Your task to perform on an android device: find photos in the google photos app Image 0: 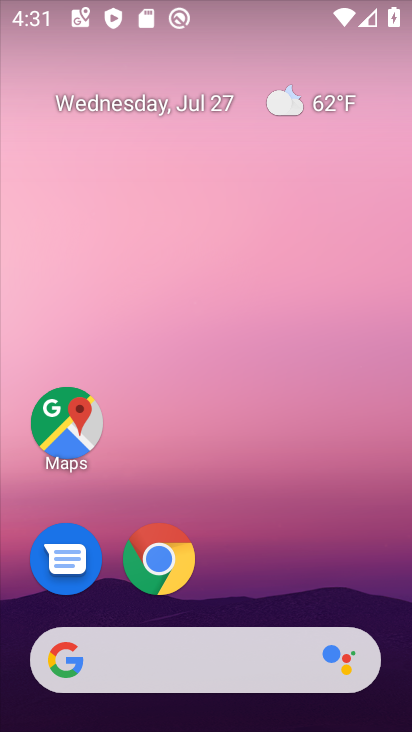
Step 0: drag from (218, 597) to (274, 102)
Your task to perform on an android device: find photos in the google photos app Image 1: 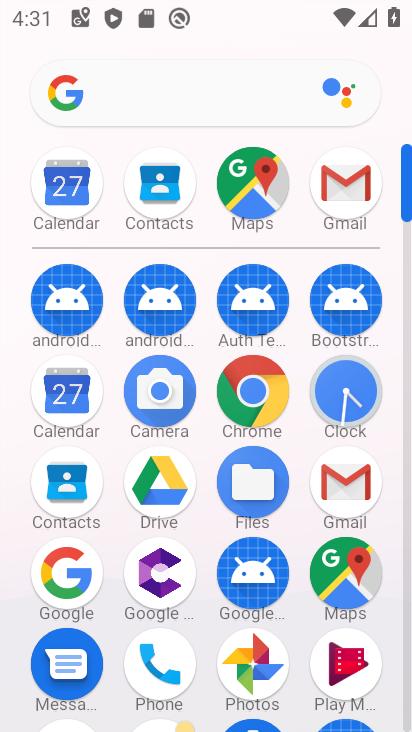
Step 1: click (251, 659)
Your task to perform on an android device: find photos in the google photos app Image 2: 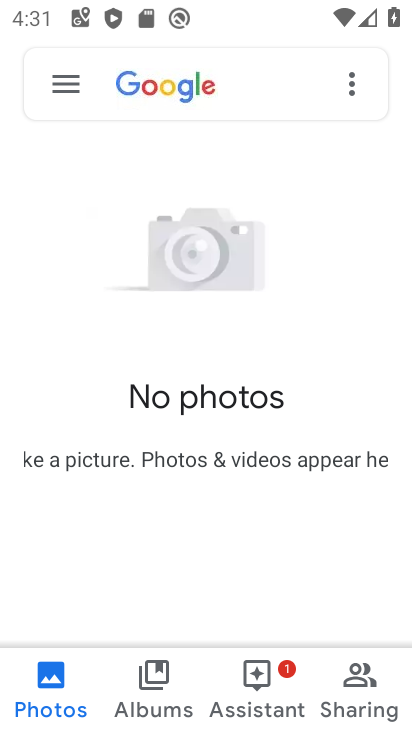
Step 2: click (49, 688)
Your task to perform on an android device: find photos in the google photos app Image 3: 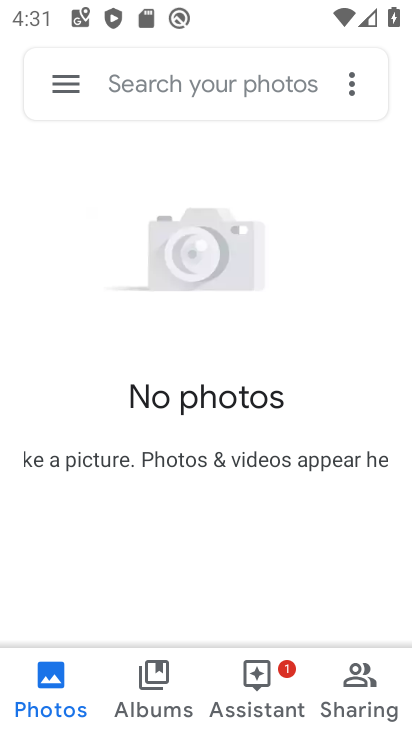
Step 3: task complete